Your task to perform on an android device: What's the weather going to be this weekend? Image 0: 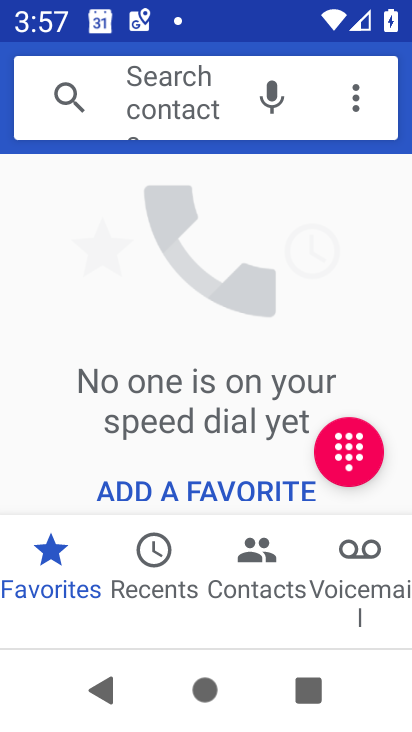
Step 0: press home button
Your task to perform on an android device: What's the weather going to be this weekend? Image 1: 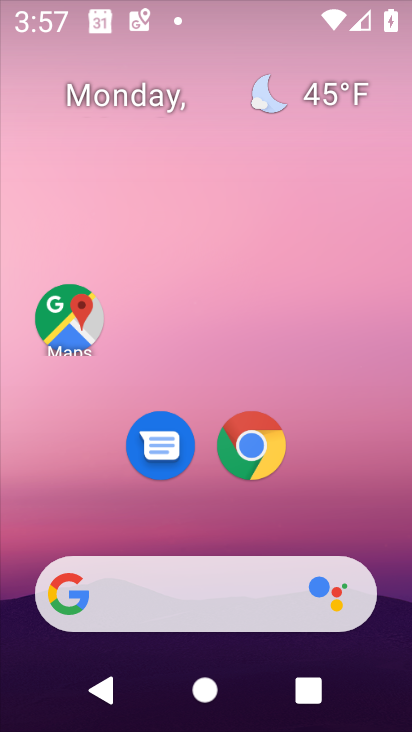
Step 1: click (202, 584)
Your task to perform on an android device: What's the weather going to be this weekend? Image 2: 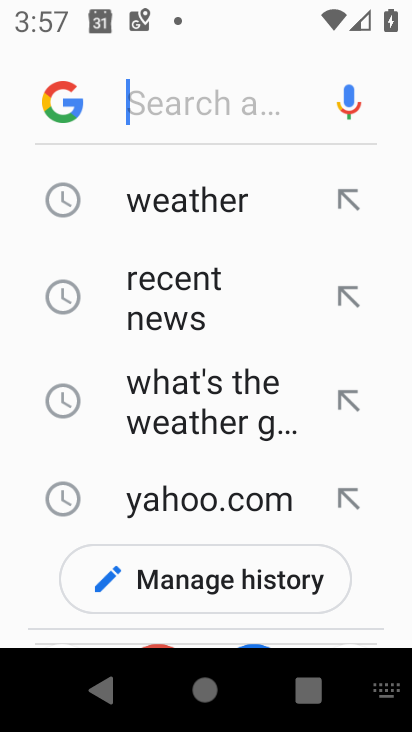
Step 2: click (222, 95)
Your task to perform on an android device: What's the weather going to be this weekend? Image 3: 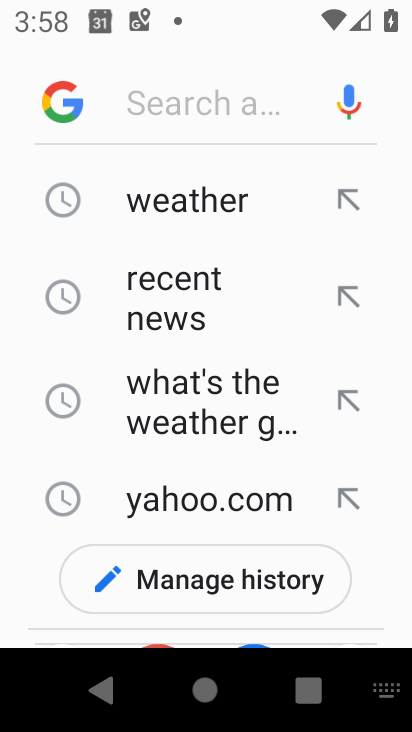
Step 3: type "what's the weather going to be this weekend"
Your task to perform on an android device: What's the weather going to be this weekend? Image 4: 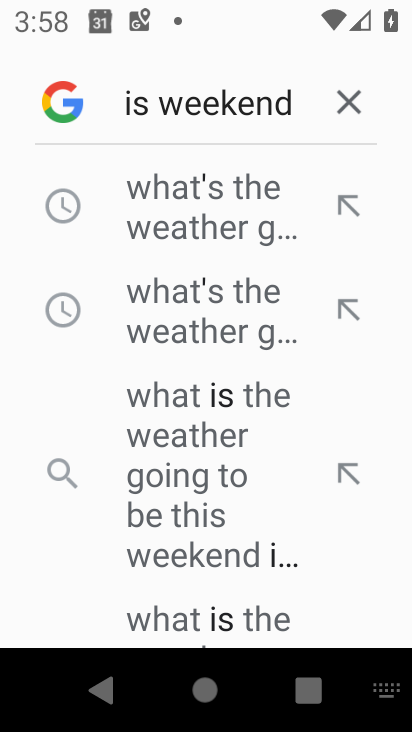
Step 4: click (265, 212)
Your task to perform on an android device: What's the weather going to be this weekend? Image 5: 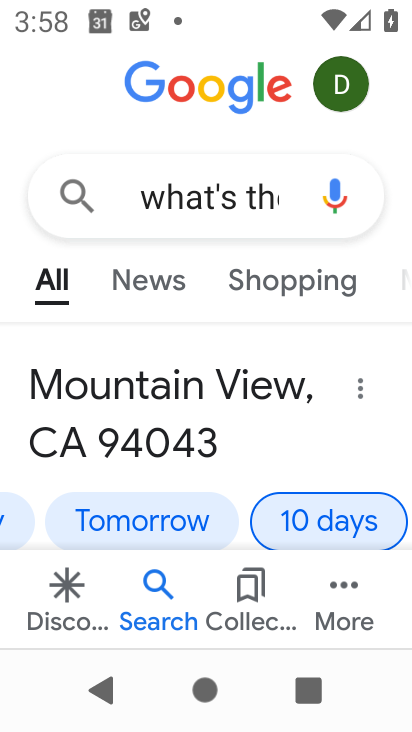
Step 5: task complete